Your task to perform on an android device: turn off javascript in the chrome app Image 0: 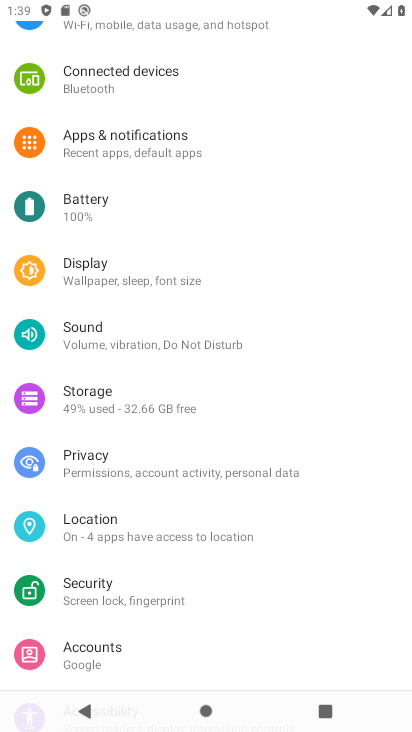
Step 0: press home button
Your task to perform on an android device: turn off javascript in the chrome app Image 1: 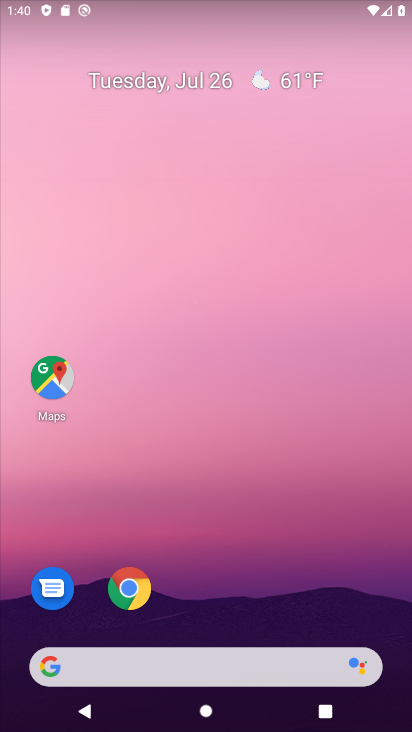
Step 1: drag from (213, 569) to (303, 59)
Your task to perform on an android device: turn off javascript in the chrome app Image 2: 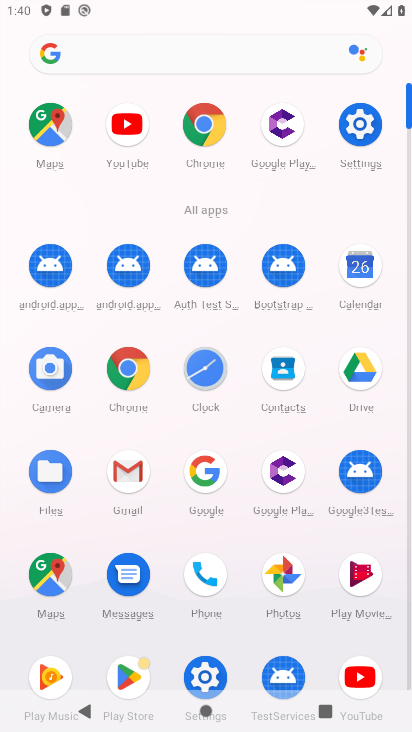
Step 2: click (217, 150)
Your task to perform on an android device: turn off javascript in the chrome app Image 3: 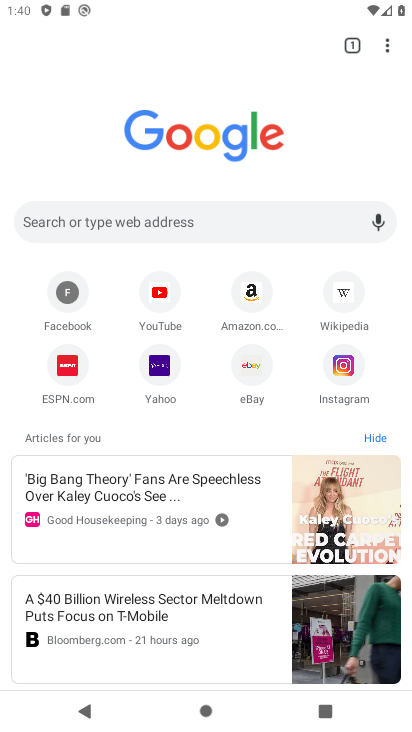
Step 3: drag from (399, 37) to (230, 383)
Your task to perform on an android device: turn off javascript in the chrome app Image 4: 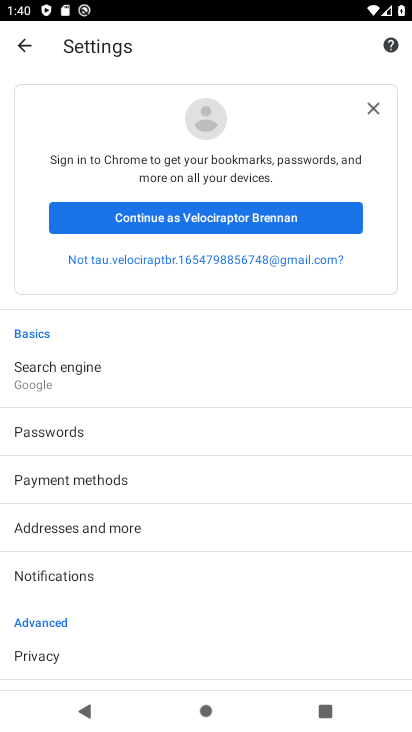
Step 4: drag from (207, 567) to (312, 240)
Your task to perform on an android device: turn off javascript in the chrome app Image 5: 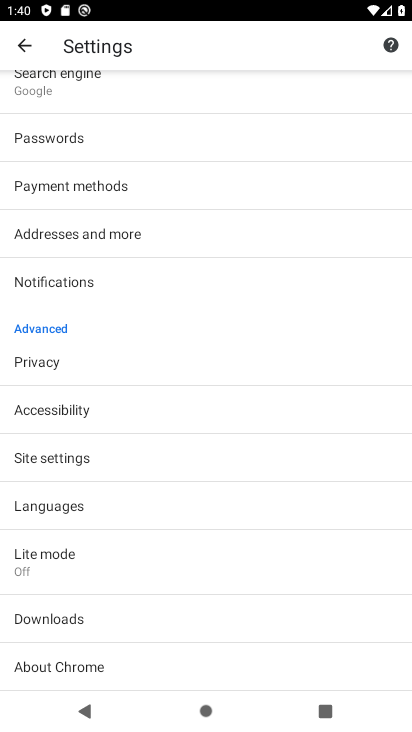
Step 5: click (105, 451)
Your task to perform on an android device: turn off javascript in the chrome app Image 6: 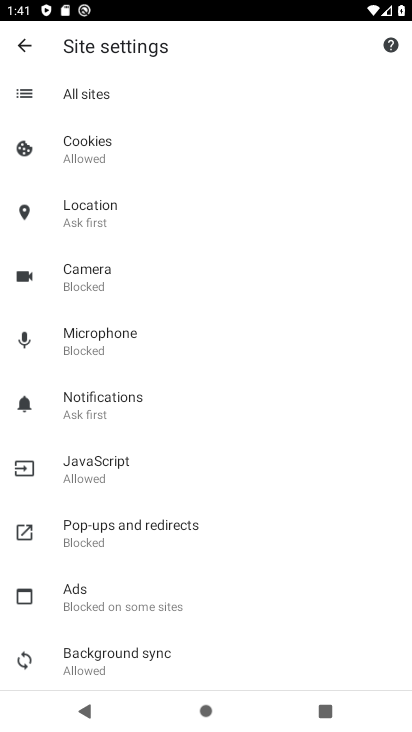
Step 6: click (102, 467)
Your task to perform on an android device: turn off javascript in the chrome app Image 7: 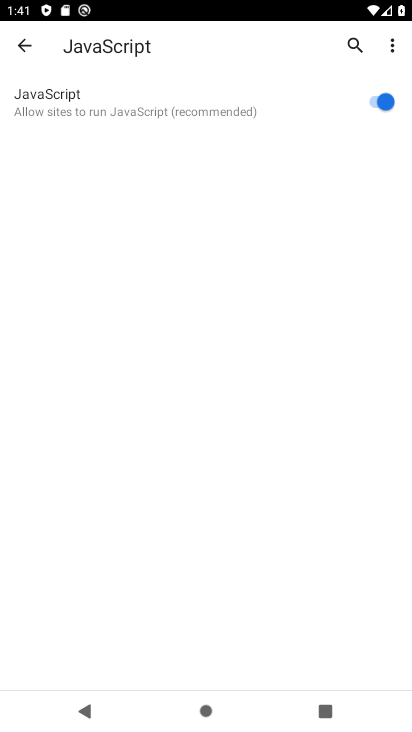
Step 7: click (385, 97)
Your task to perform on an android device: turn off javascript in the chrome app Image 8: 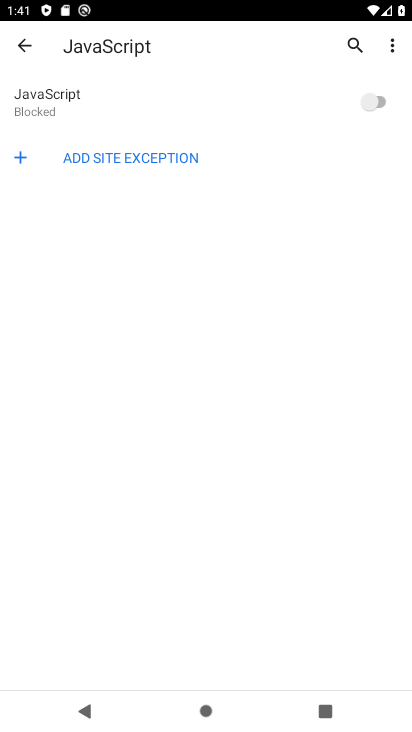
Step 8: task complete